Your task to perform on an android device: turn off javascript in the chrome app Image 0: 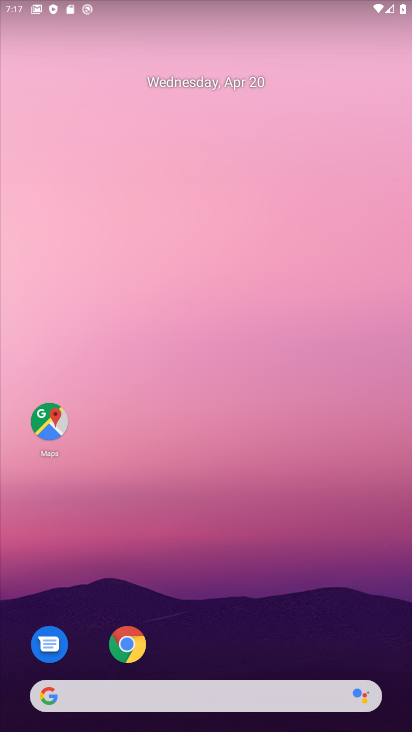
Step 0: drag from (321, 628) to (284, 52)
Your task to perform on an android device: turn off javascript in the chrome app Image 1: 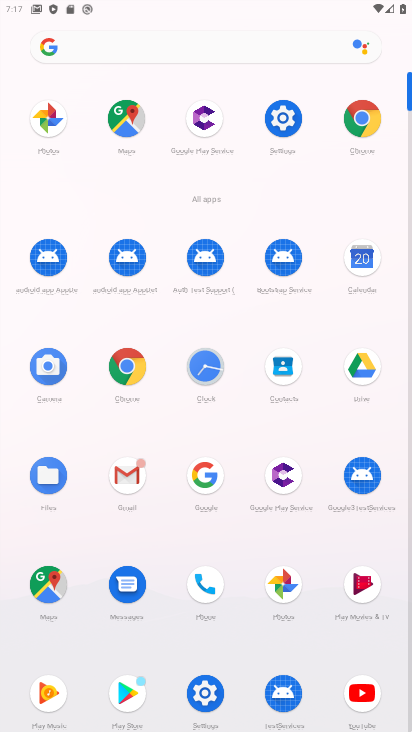
Step 1: click (117, 366)
Your task to perform on an android device: turn off javascript in the chrome app Image 2: 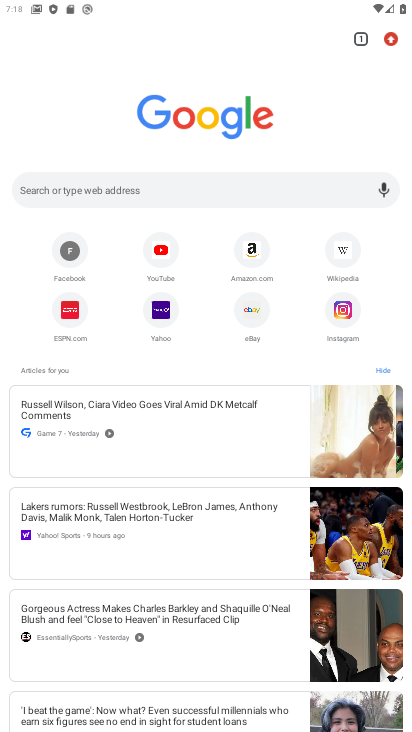
Step 2: click (393, 40)
Your task to perform on an android device: turn off javascript in the chrome app Image 3: 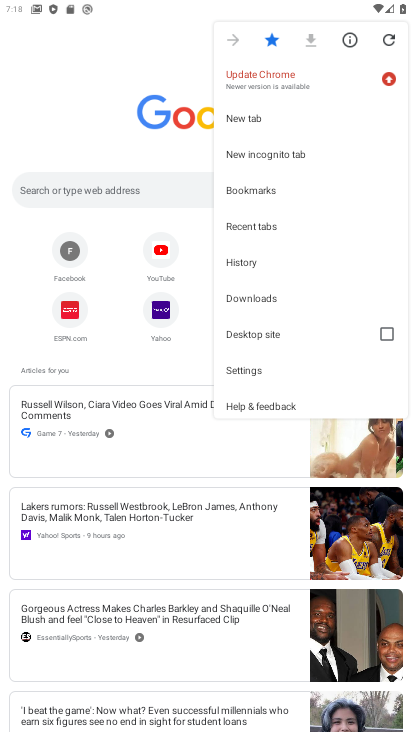
Step 3: click (266, 366)
Your task to perform on an android device: turn off javascript in the chrome app Image 4: 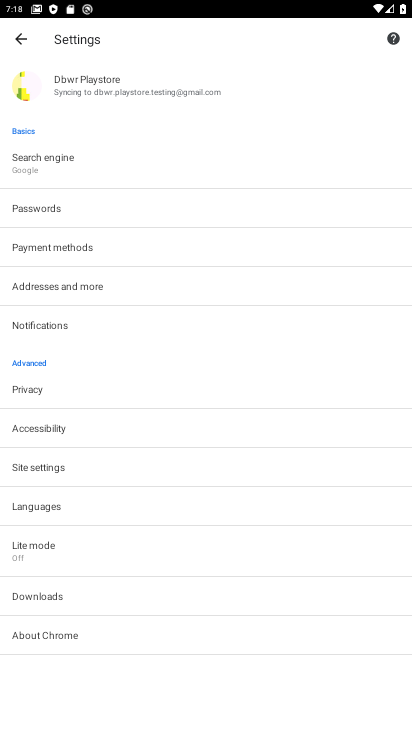
Step 4: click (123, 474)
Your task to perform on an android device: turn off javascript in the chrome app Image 5: 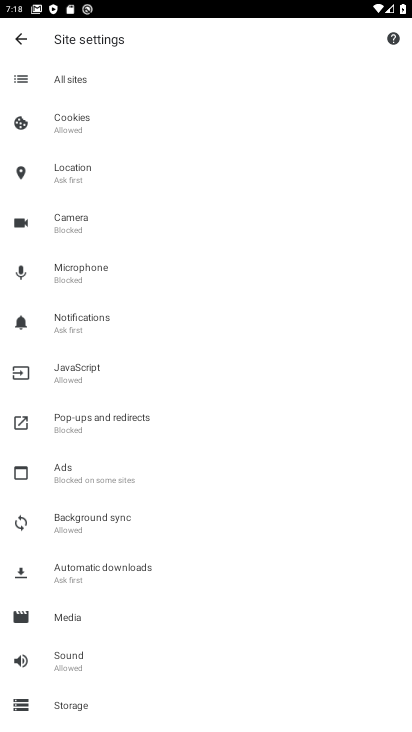
Step 5: click (136, 381)
Your task to perform on an android device: turn off javascript in the chrome app Image 6: 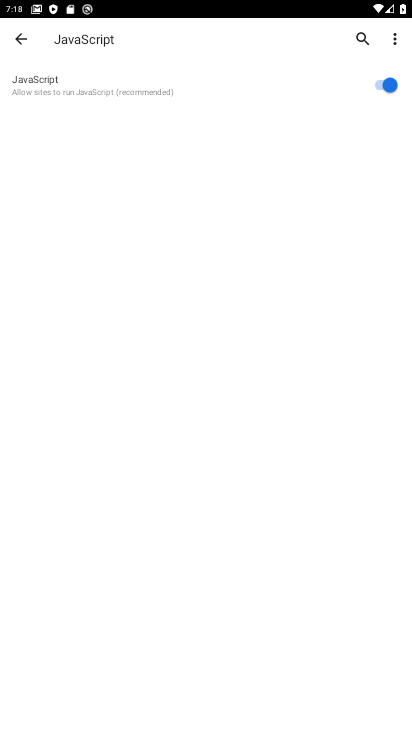
Step 6: click (382, 87)
Your task to perform on an android device: turn off javascript in the chrome app Image 7: 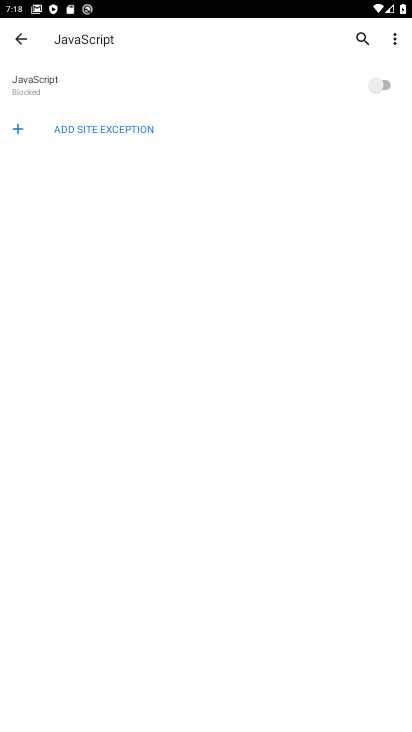
Step 7: task complete